Your task to perform on an android device: Show the shopping cart on costco. Search for "razer kraken" on costco, select the first entry, add it to the cart, then select checkout. Image 0: 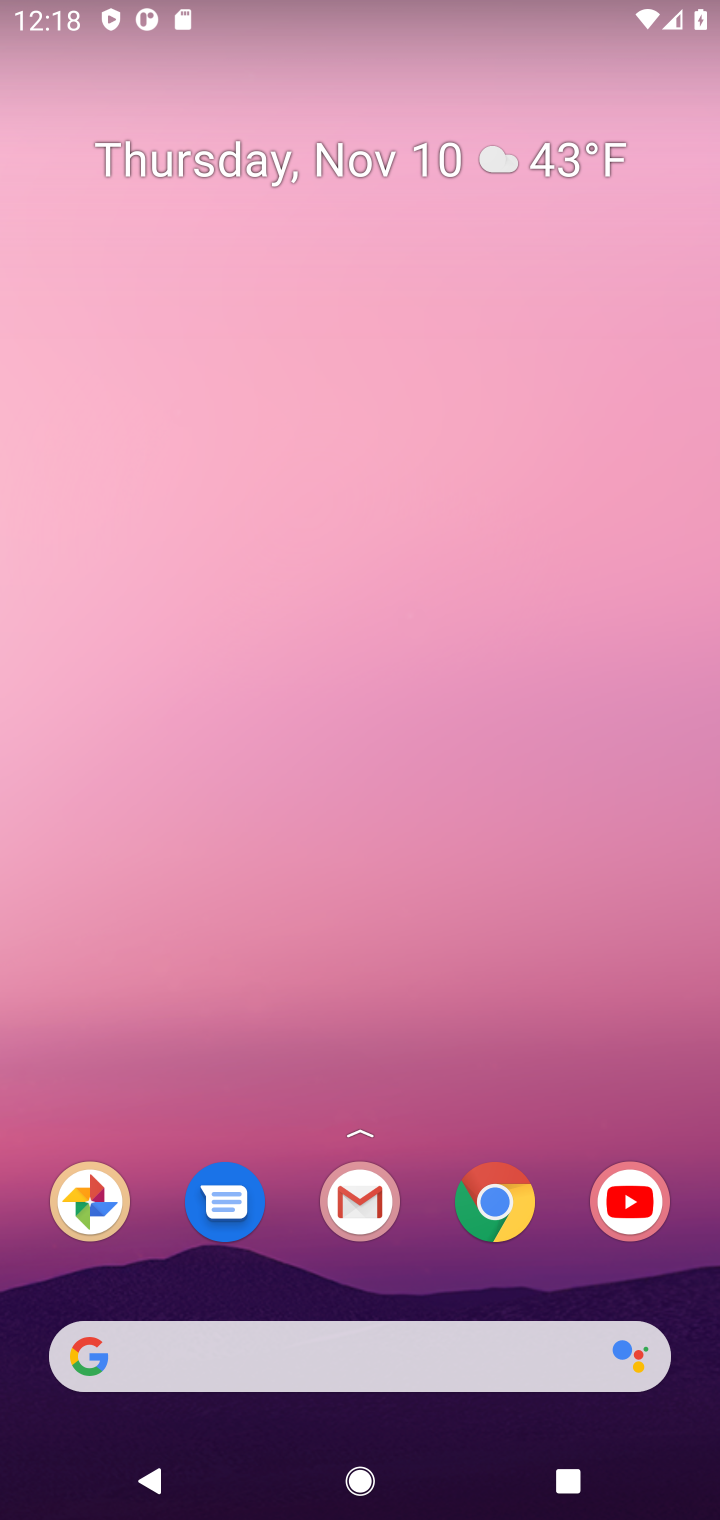
Step 0: click (495, 1199)
Your task to perform on an android device: Show the shopping cart on costco. Search for "razer kraken" on costco, select the first entry, add it to the cart, then select checkout. Image 1: 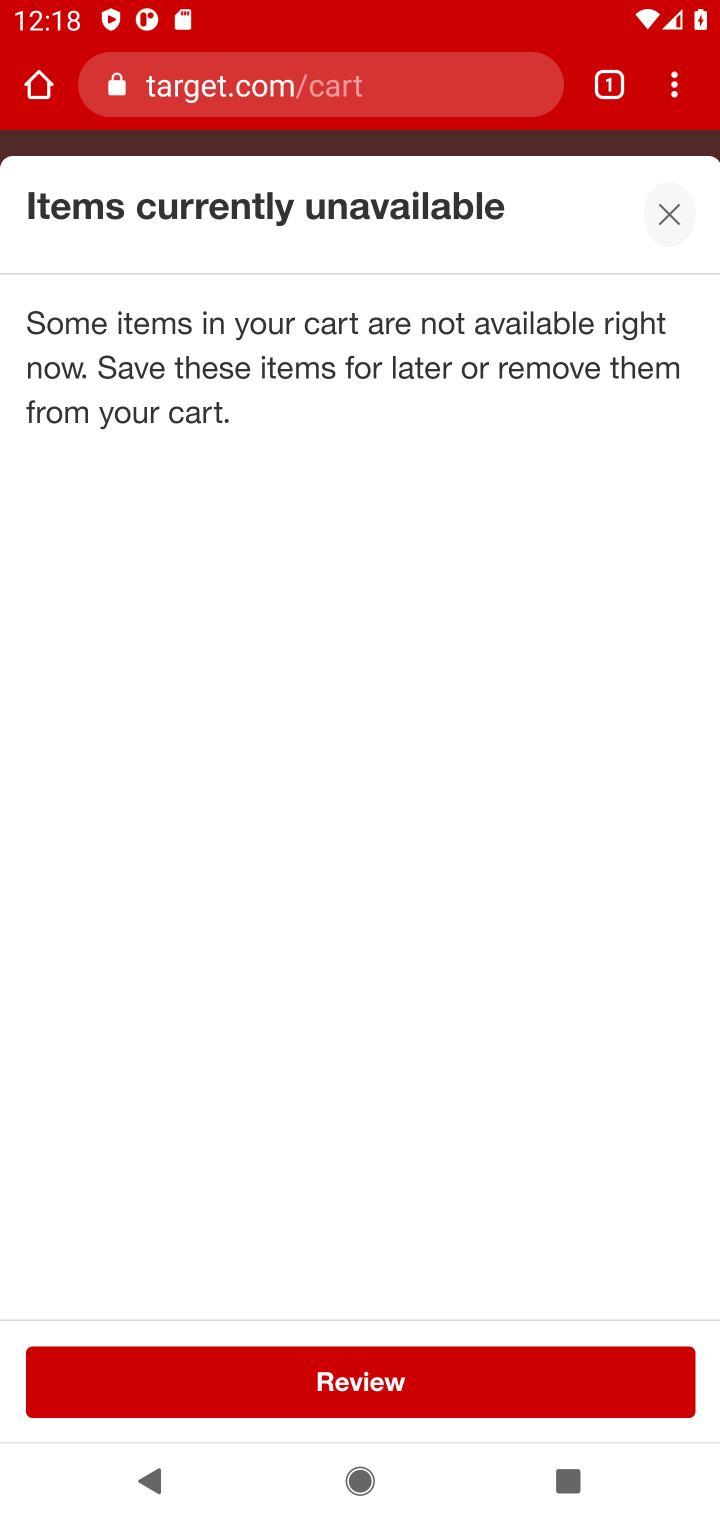
Step 1: click (37, 82)
Your task to perform on an android device: Show the shopping cart on costco. Search for "razer kraken" on costco, select the first entry, add it to the cart, then select checkout. Image 2: 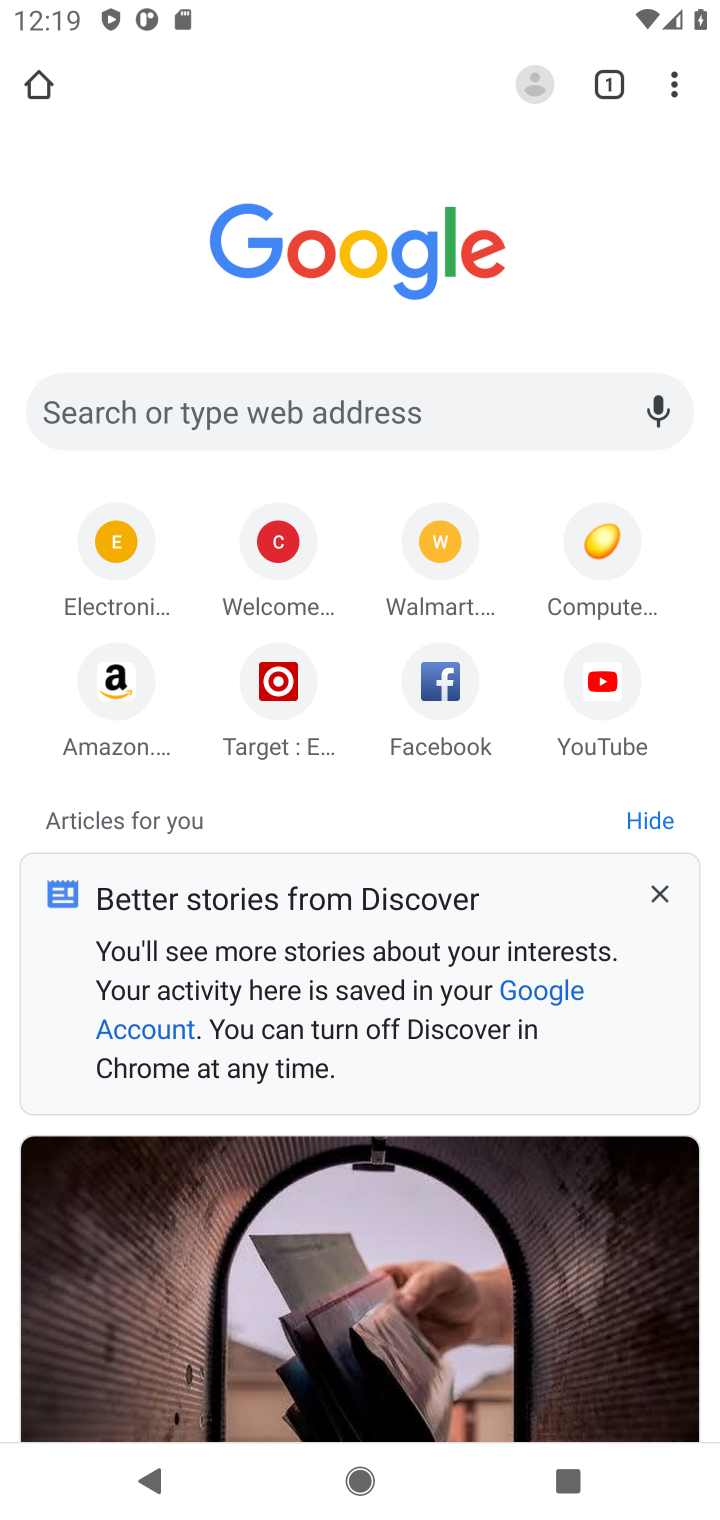
Step 2: click (499, 403)
Your task to perform on an android device: Show the shopping cart on costco. Search for "razer kraken" on costco, select the first entry, add it to the cart, then select checkout. Image 3: 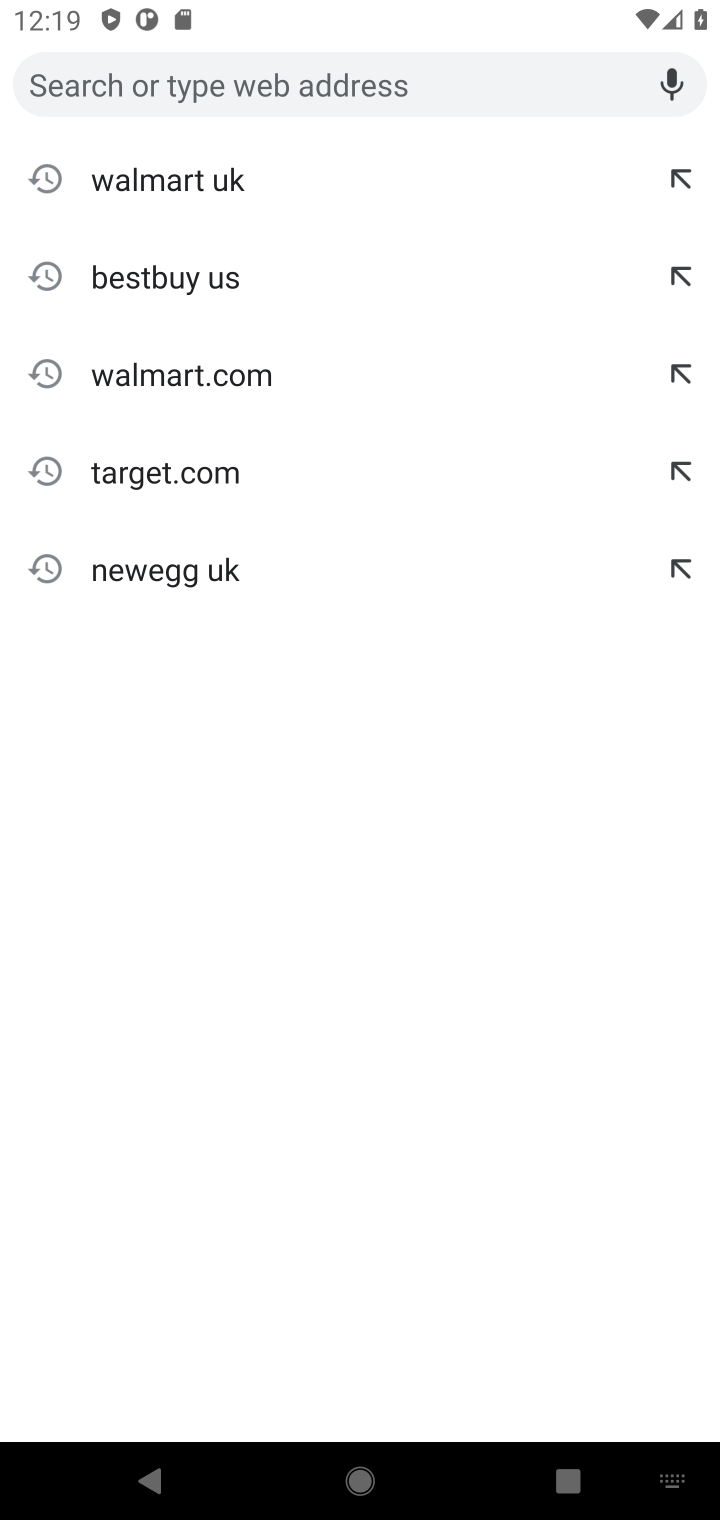
Step 3: type "costco"
Your task to perform on an android device: Show the shopping cart on costco. Search for "razer kraken" on costco, select the first entry, add it to the cart, then select checkout. Image 4: 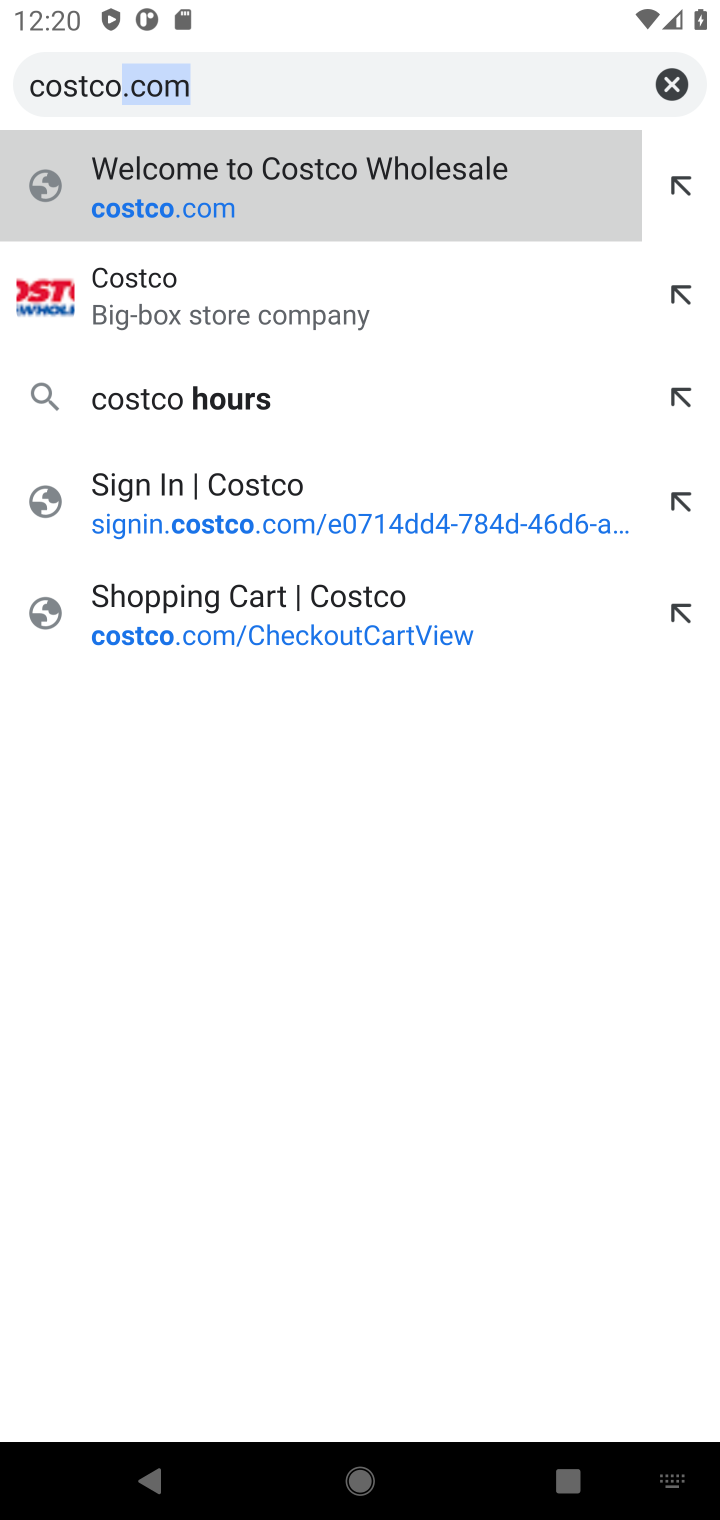
Step 4: click (408, 92)
Your task to perform on an android device: Show the shopping cart on costco. Search for "razer kraken" on costco, select the first entry, add it to the cart, then select checkout. Image 5: 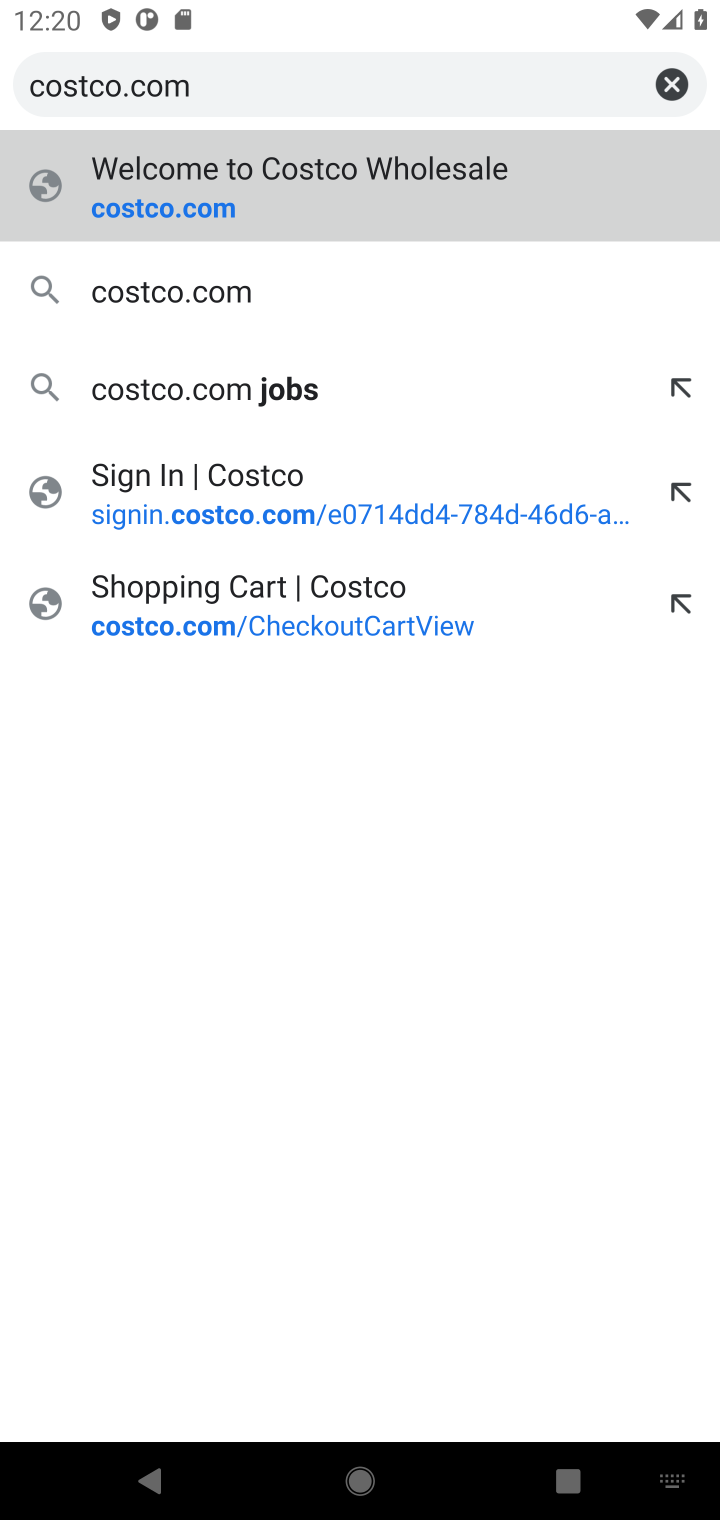
Step 5: click (243, 282)
Your task to perform on an android device: Show the shopping cart on costco. Search for "razer kraken" on costco, select the first entry, add it to the cart, then select checkout. Image 6: 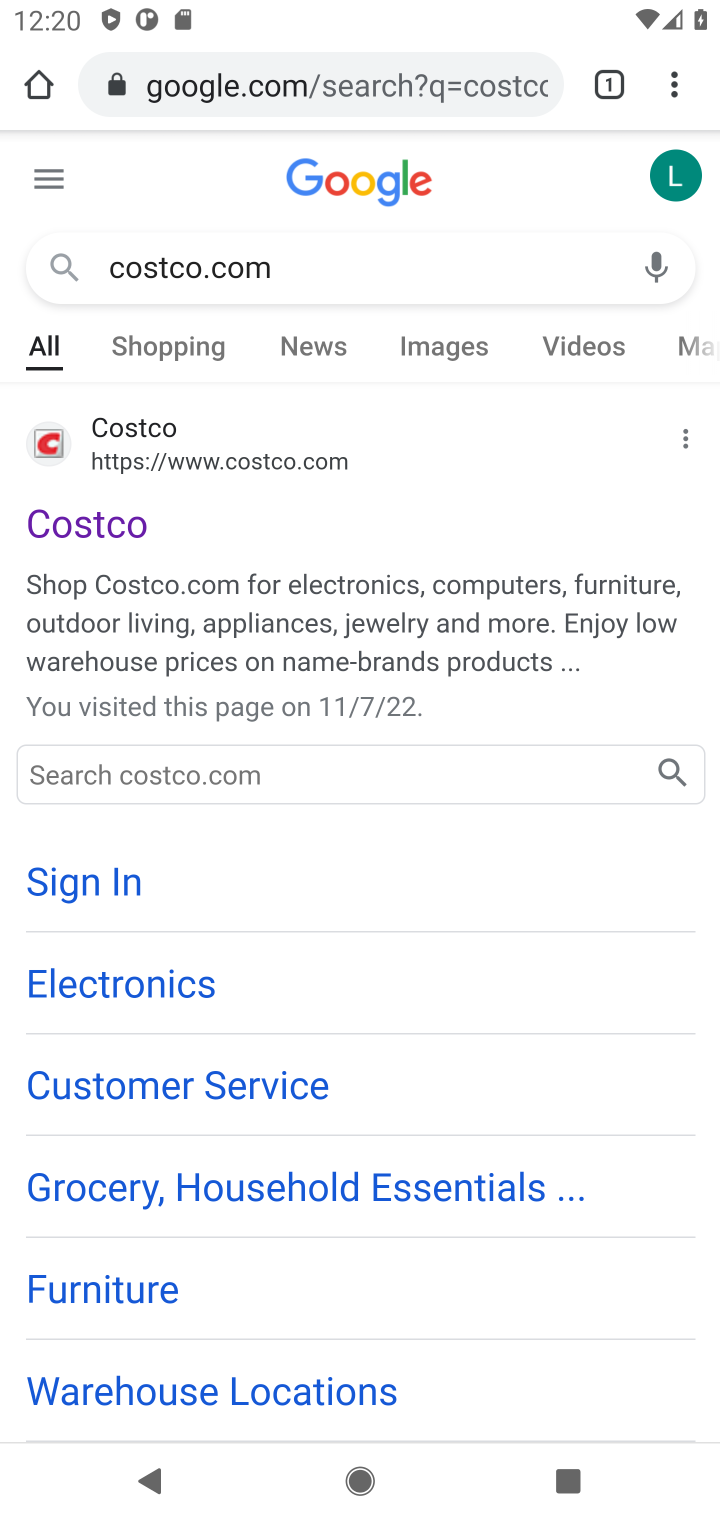
Step 6: click (310, 458)
Your task to perform on an android device: Show the shopping cart on costco. Search for "razer kraken" on costco, select the first entry, add it to the cart, then select checkout. Image 7: 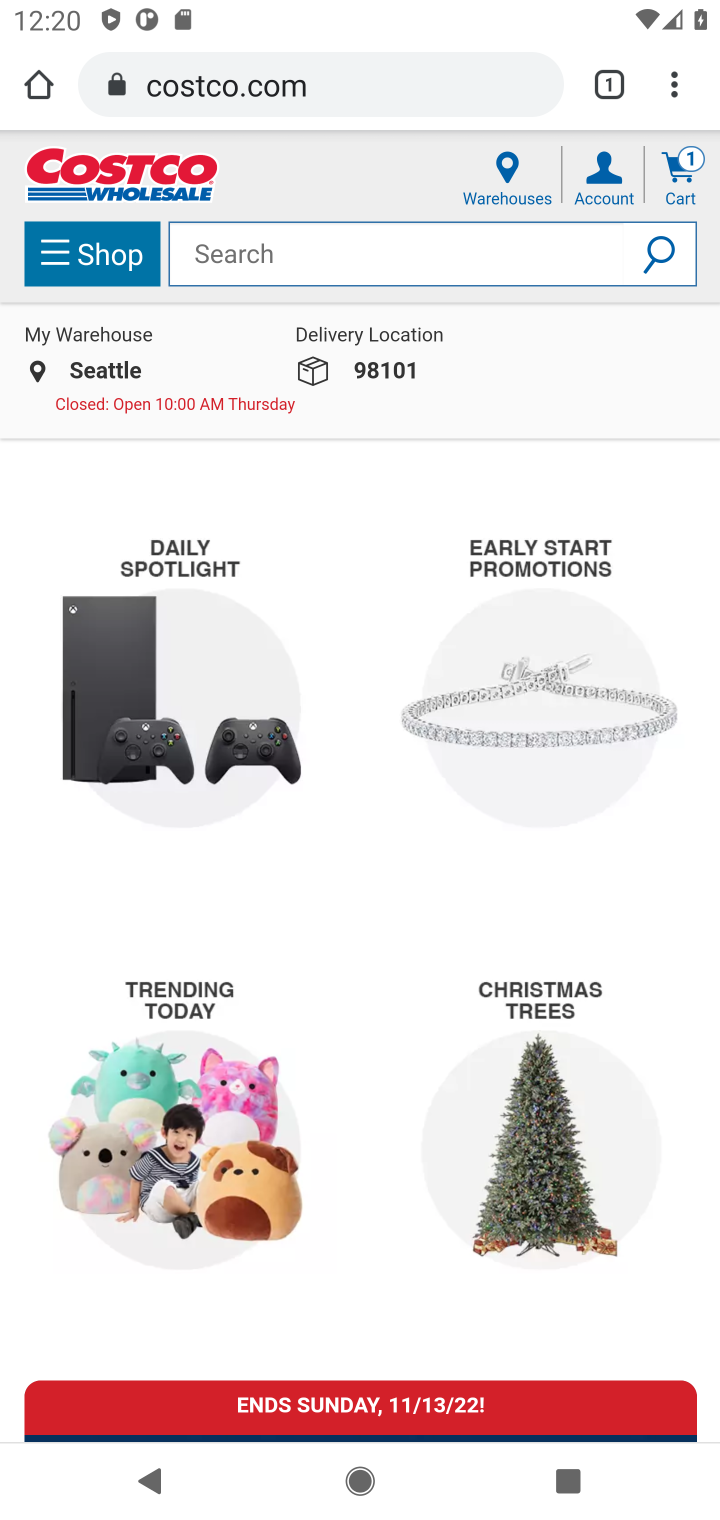
Step 7: click (422, 268)
Your task to perform on an android device: Show the shopping cart on costco. Search for "razer kraken" on costco, select the first entry, add it to the cart, then select checkout. Image 8: 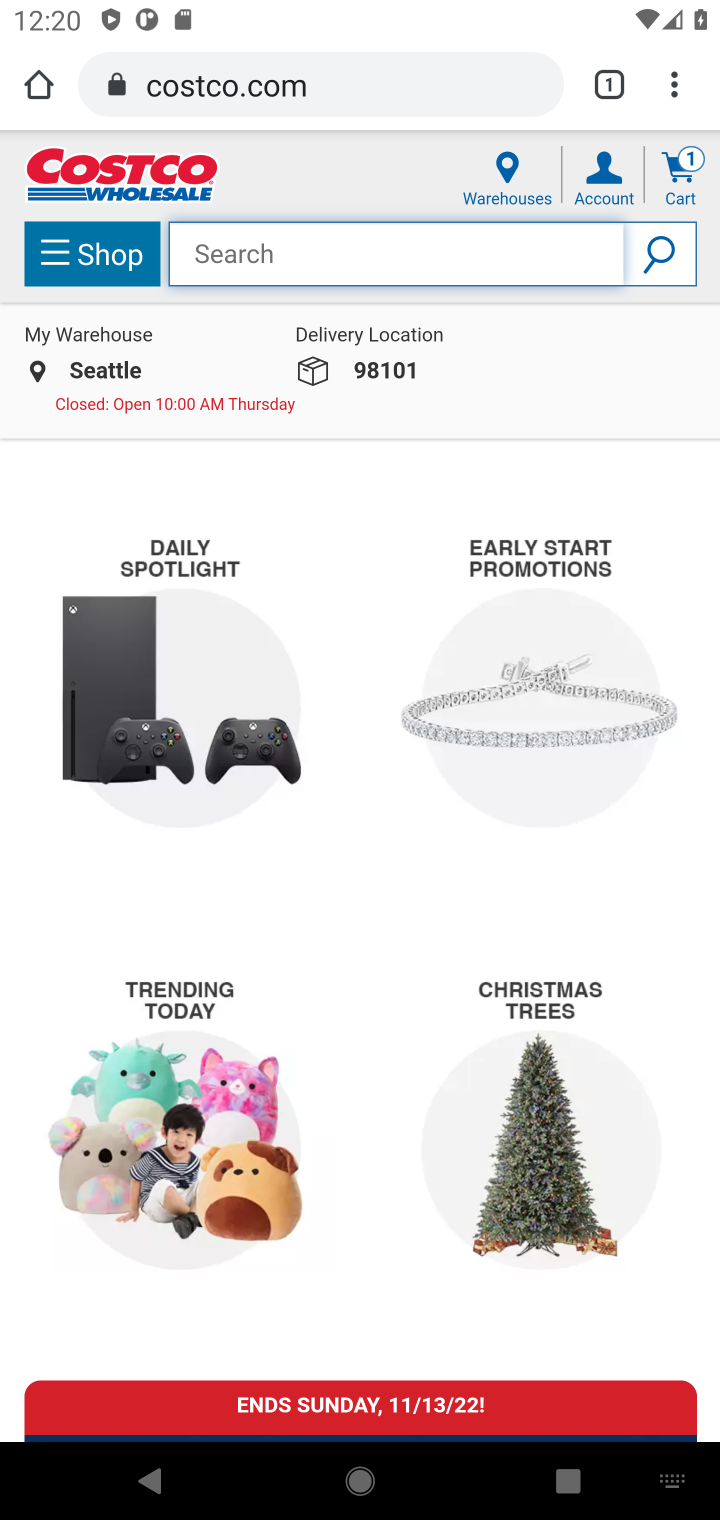
Step 8: type "razer kraken"
Your task to perform on an android device: Show the shopping cart on costco. Search for "razer kraken" on costco, select the first entry, add it to the cart, then select checkout. Image 9: 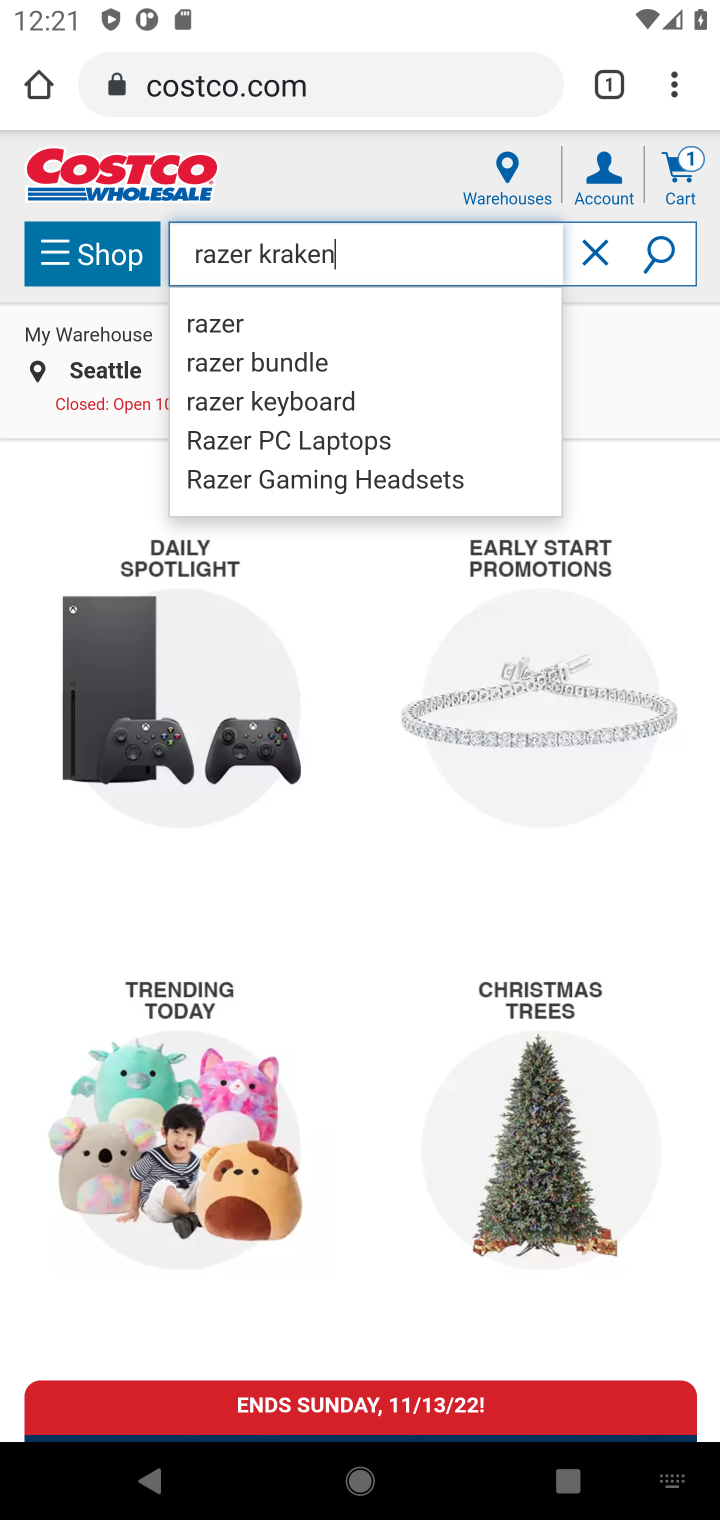
Step 9: click (668, 348)
Your task to perform on an android device: Show the shopping cart on costco. Search for "razer kraken" on costco, select the first entry, add it to the cart, then select checkout. Image 10: 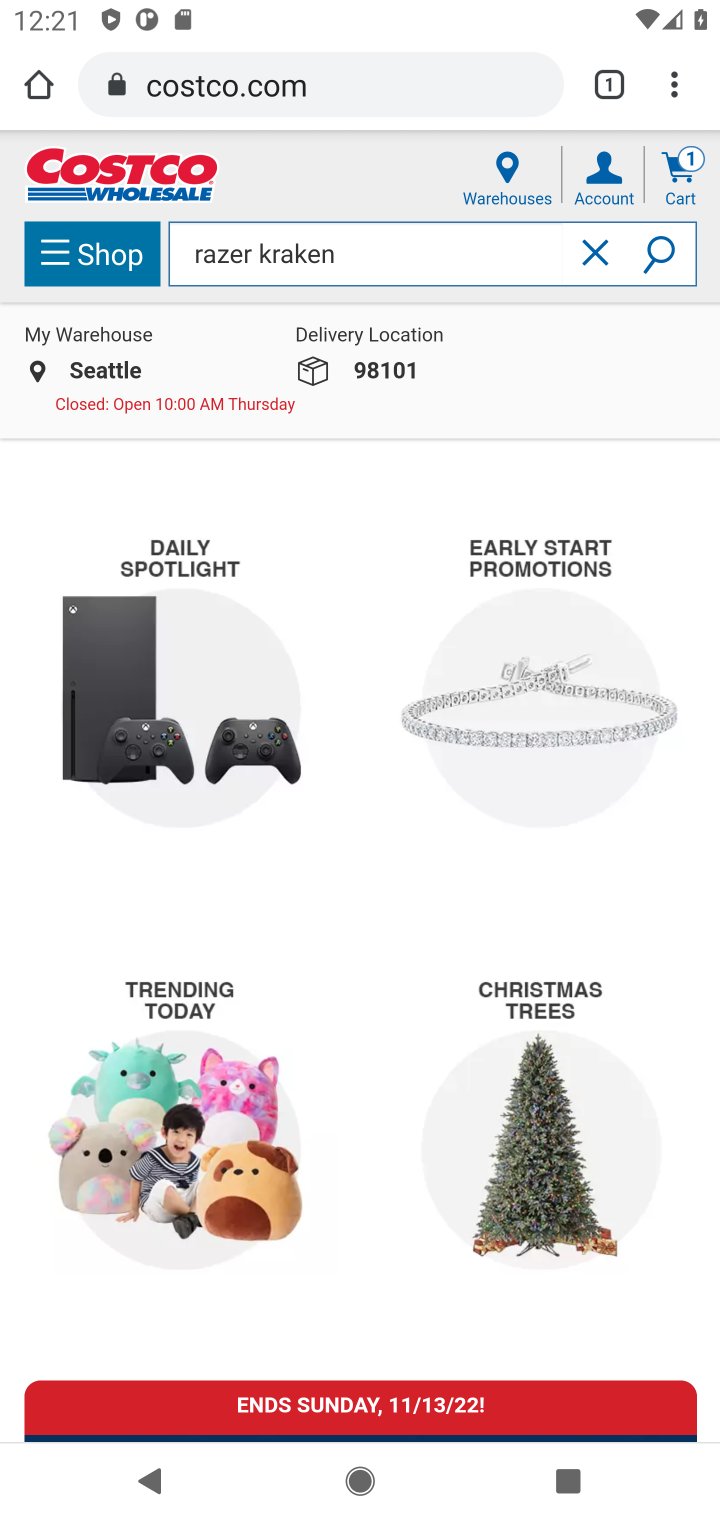
Step 10: click (489, 300)
Your task to perform on an android device: Show the shopping cart on costco. Search for "razer kraken" on costco, select the first entry, add it to the cart, then select checkout. Image 11: 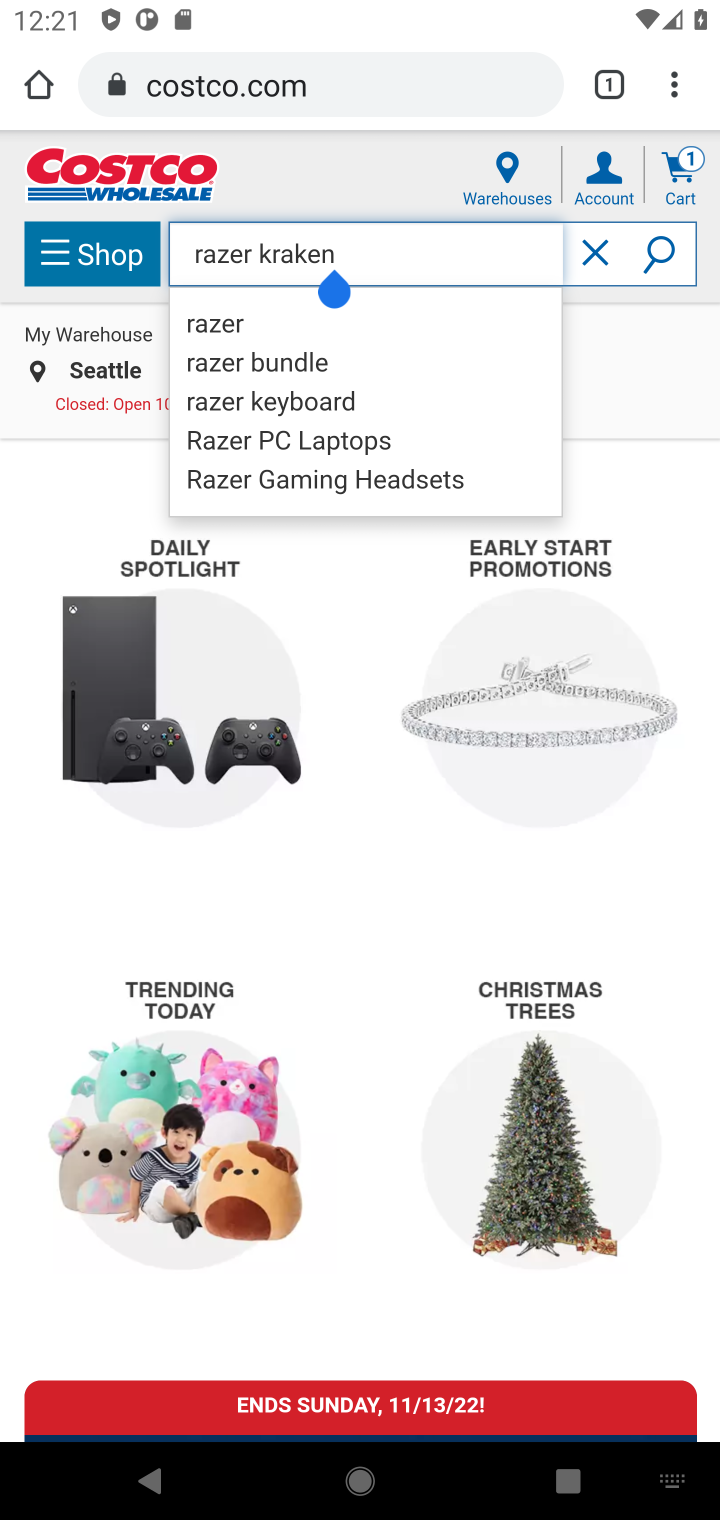
Step 11: task complete